Your task to perform on an android device: Open settings Image 0: 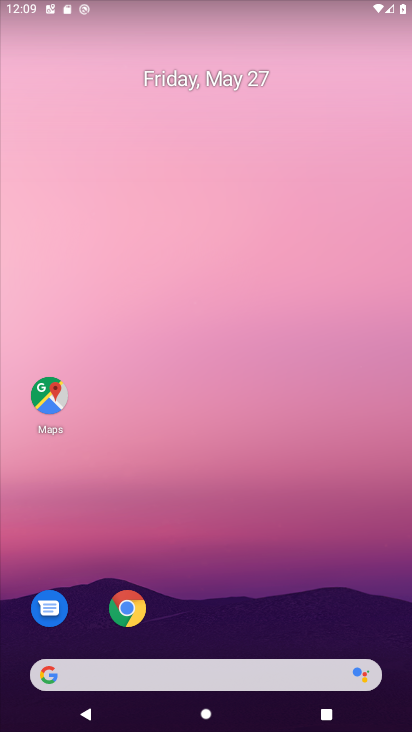
Step 0: drag from (393, 671) to (384, 267)
Your task to perform on an android device: Open settings Image 1: 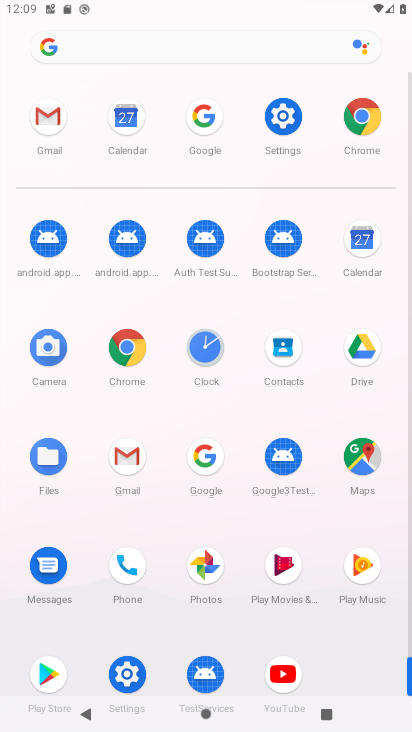
Step 1: click (283, 122)
Your task to perform on an android device: Open settings Image 2: 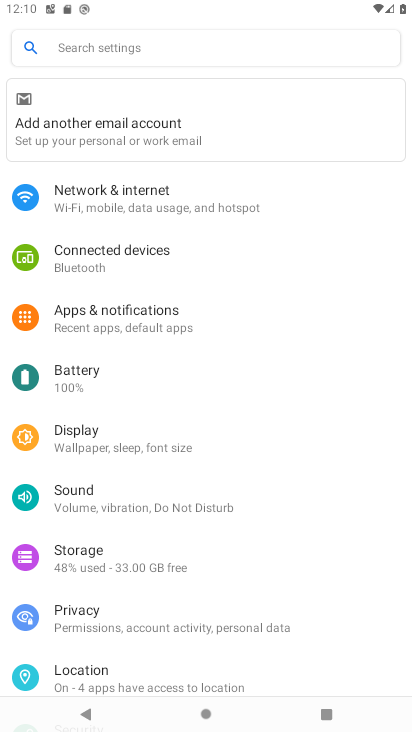
Step 2: task complete